Your task to perform on an android device: turn smart compose on in the gmail app Image 0: 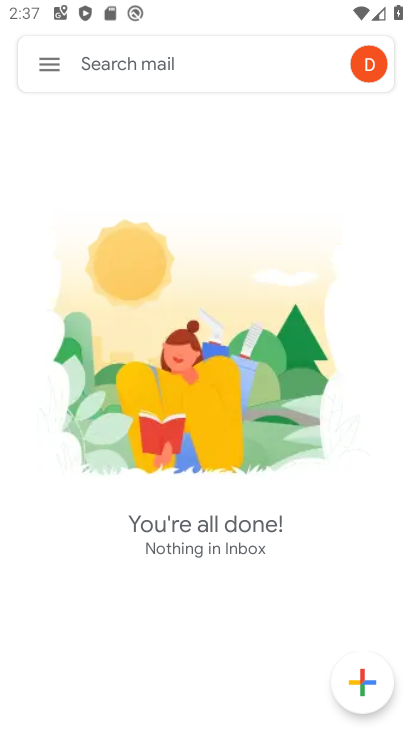
Step 0: press home button
Your task to perform on an android device: turn smart compose on in the gmail app Image 1: 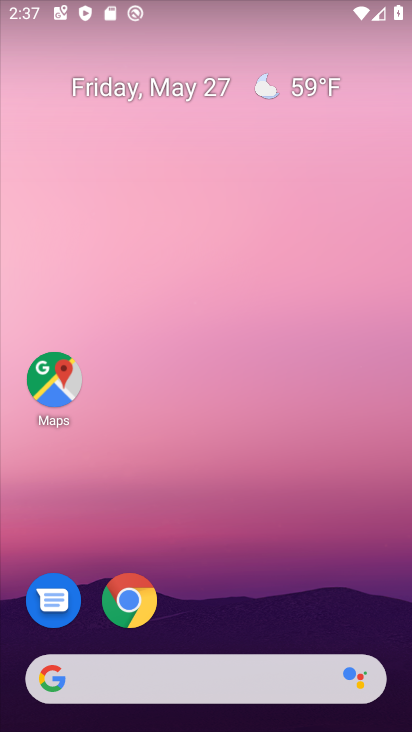
Step 1: drag from (249, 589) to (233, 107)
Your task to perform on an android device: turn smart compose on in the gmail app Image 2: 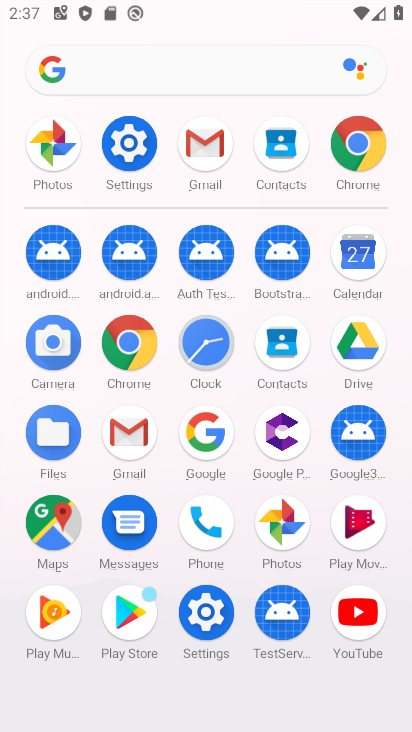
Step 2: click (205, 141)
Your task to perform on an android device: turn smart compose on in the gmail app Image 3: 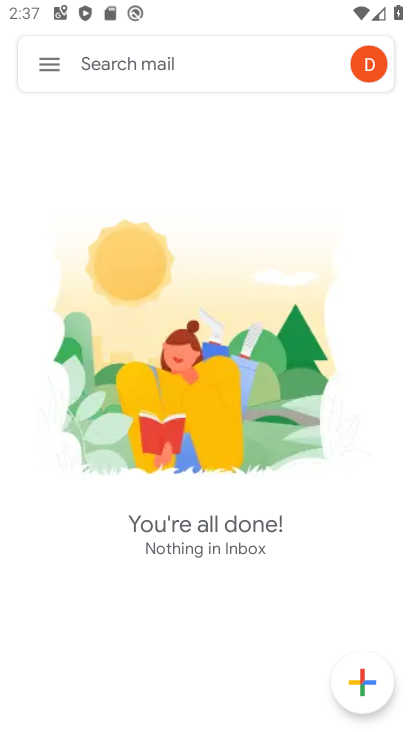
Step 3: click (46, 64)
Your task to perform on an android device: turn smart compose on in the gmail app Image 4: 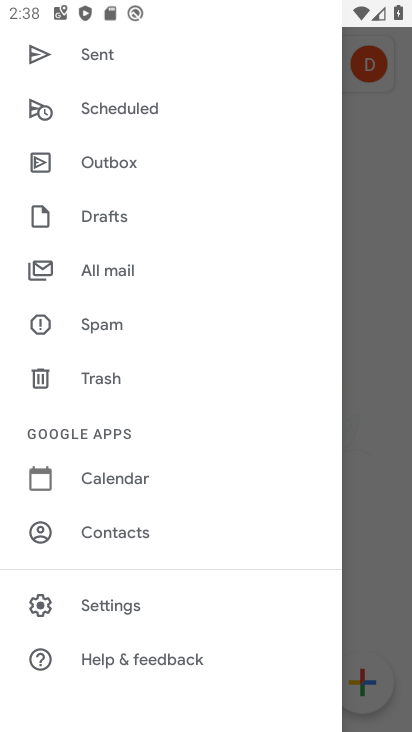
Step 4: click (118, 605)
Your task to perform on an android device: turn smart compose on in the gmail app Image 5: 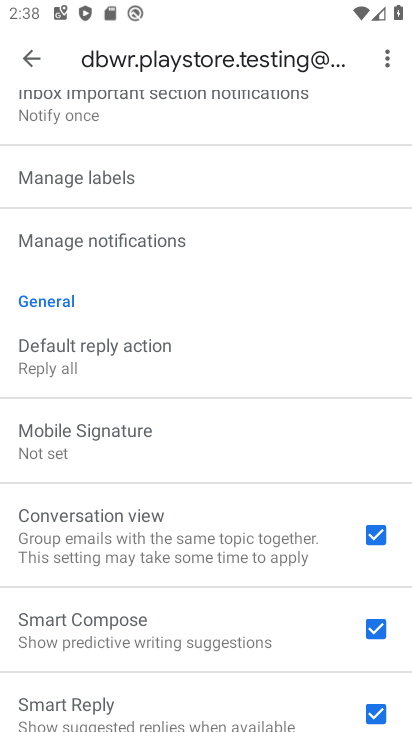
Step 5: task complete